Your task to perform on an android device: Open Google Chrome and click the shortcut for Amazon.com Image 0: 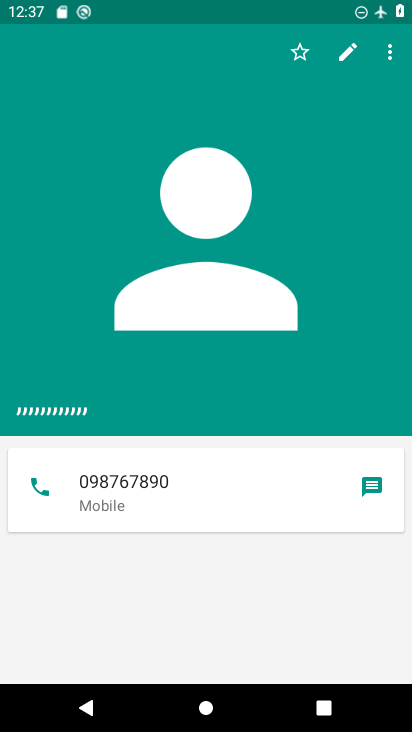
Step 0: press home button
Your task to perform on an android device: Open Google Chrome and click the shortcut for Amazon.com Image 1: 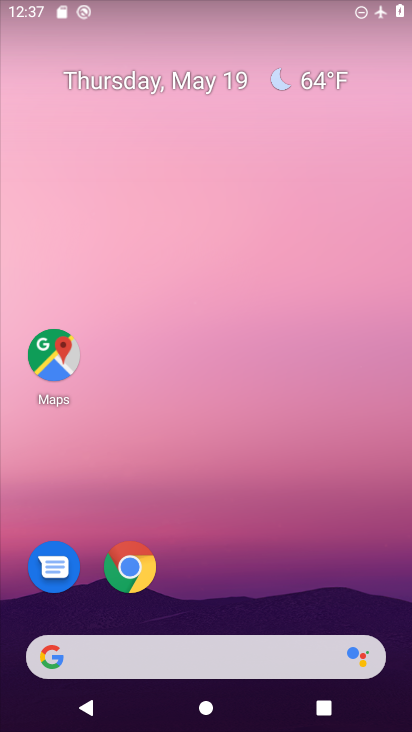
Step 1: click (150, 569)
Your task to perform on an android device: Open Google Chrome and click the shortcut for Amazon.com Image 2: 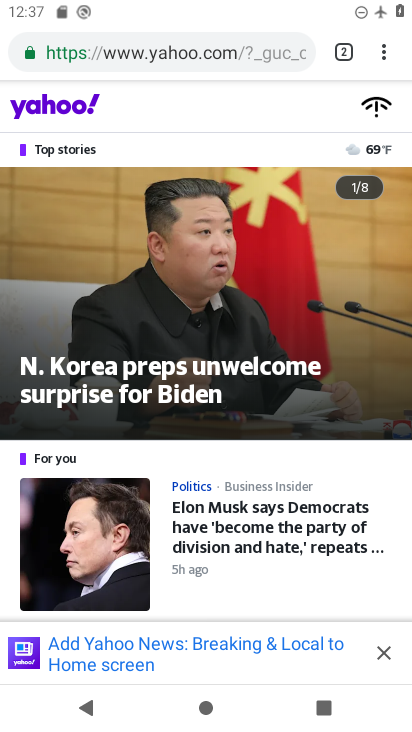
Step 2: drag from (382, 46) to (222, 106)
Your task to perform on an android device: Open Google Chrome and click the shortcut for Amazon.com Image 3: 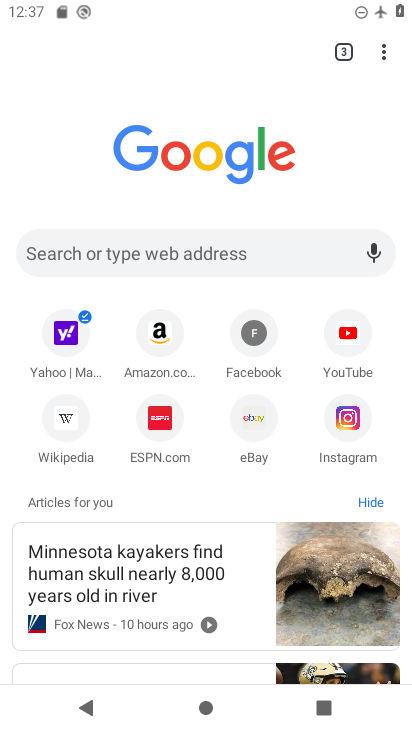
Step 3: click (160, 347)
Your task to perform on an android device: Open Google Chrome and click the shortcut for Amazon.com Image 4: 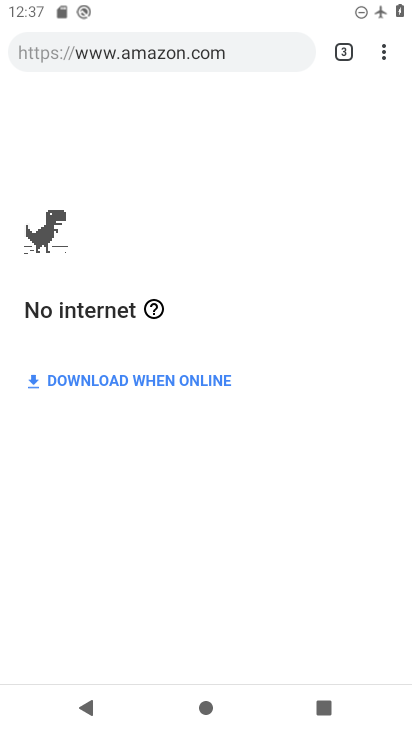
Step 4: task complete